Your task to perform on an android device: Open Chrome and go to settings Image 0: 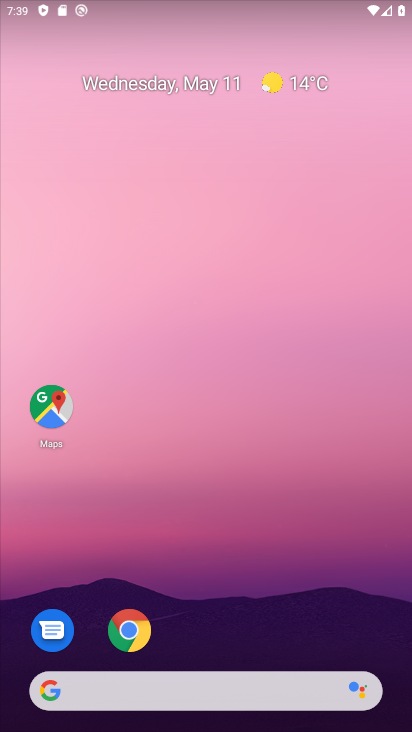
Step 0: click (99, 277)
Your task to perform on an android device: Open Chrome and go to settings Image 1: 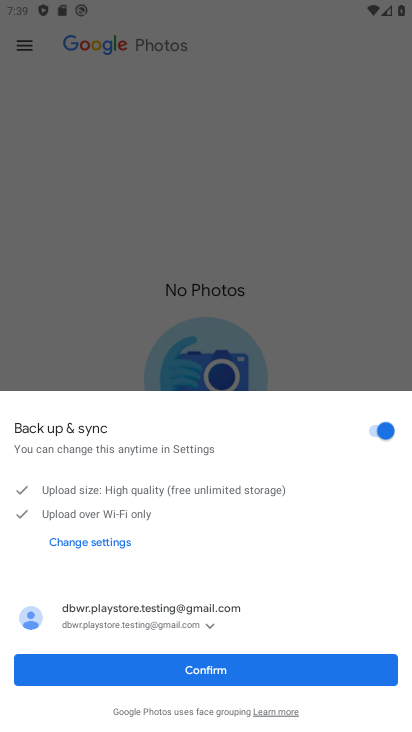
Step 1: press back button
Your task to perform on an android device: Open Chrome and go to settings Image 2: 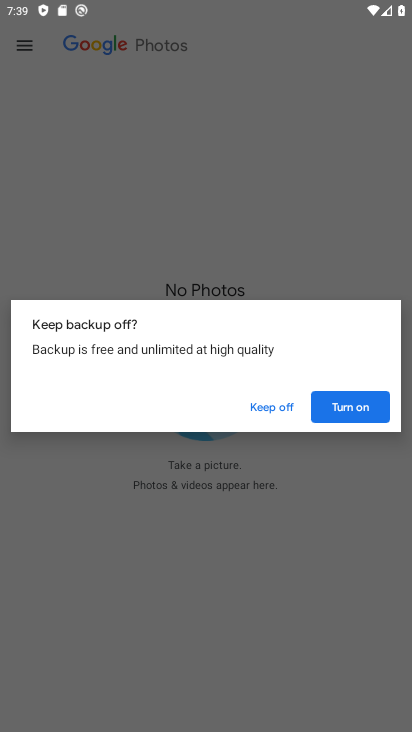
Step 2: press back button
Your task to perform on an android device: Open Chrome and go to settings Image 3: 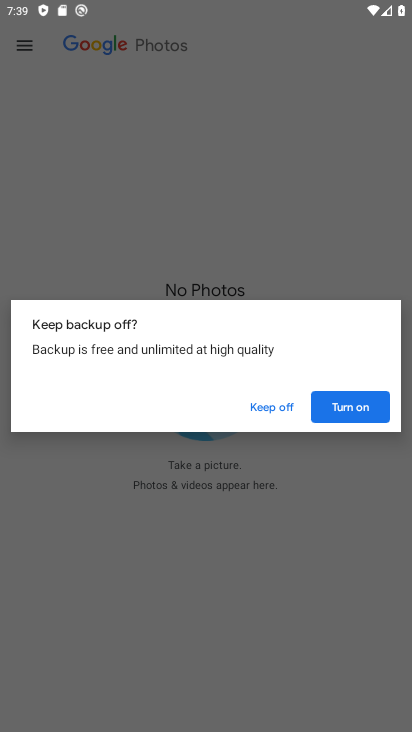
Step 3: click (262, 404)
Your task to perform on an android device: Open Chrome and go to settings Image 4: 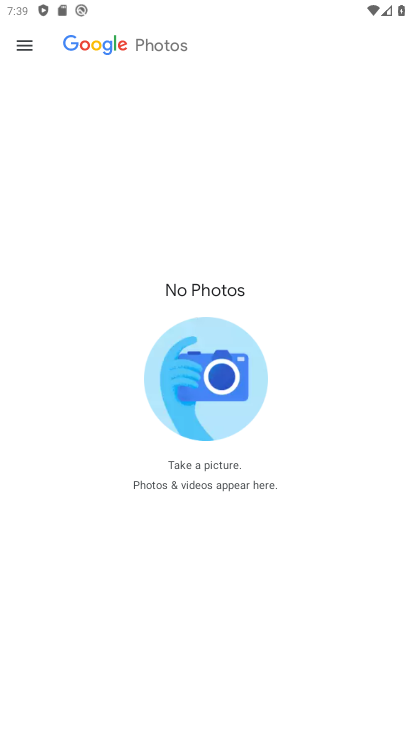
Step 4: press home button
Your task to perform on an android device: Open Chrome and go to settings Image 5: 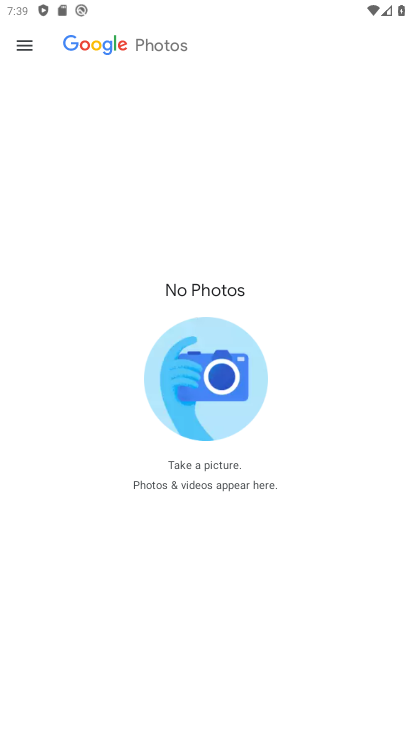
Step 5: press home button
Your task to perform on an android device: Open Chrome and go to settings Image 6: 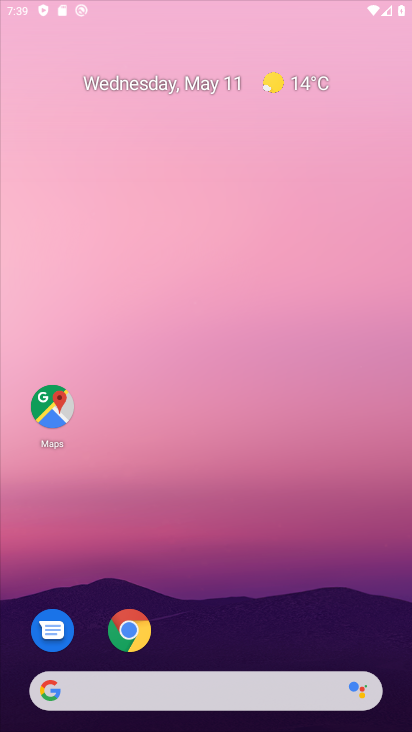
Step 6: press home button
Your task to perform on an android device: Open Chrome and go to settings Image 7: 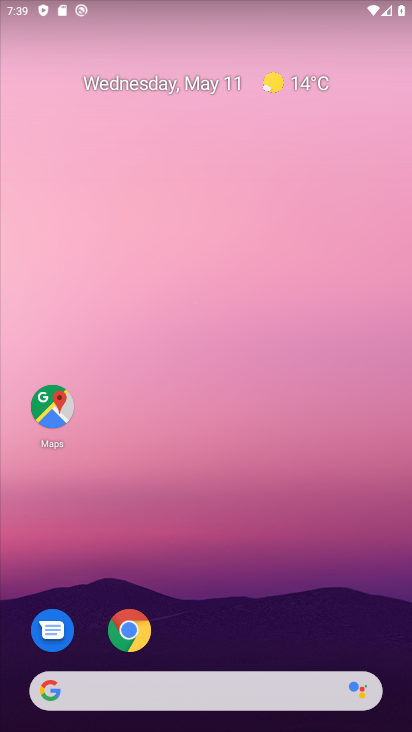
Step 7: drag from (369, 696) to (210, 3)
Your task to perform on an android device: Open Chrome and go to settings Image 8: 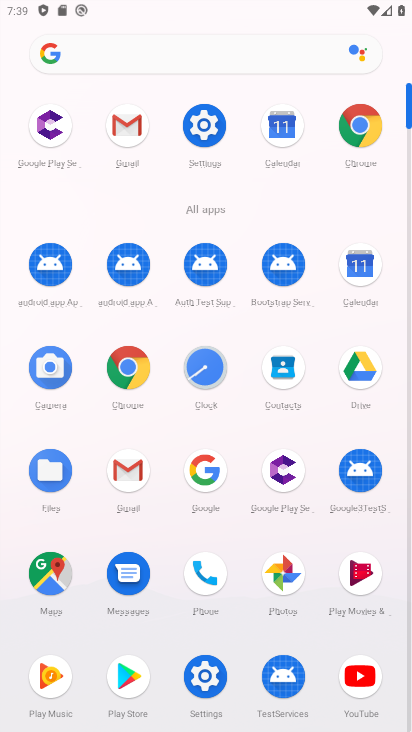
Step 8: click (357, 113)
Your task to perform on an android device: Open Chrome and go to settings Image 9: 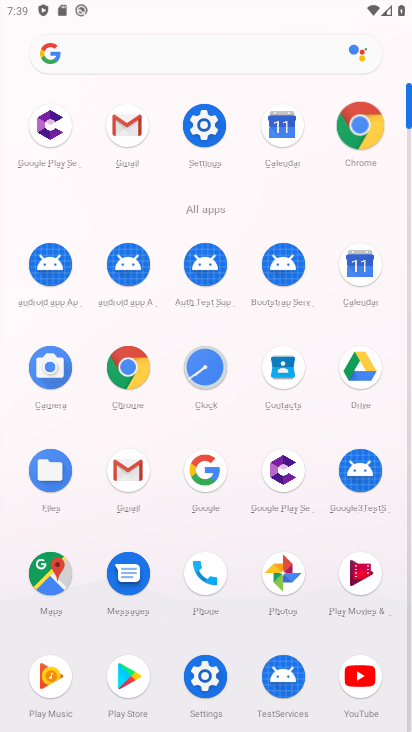
Step 9: click (357, 113)
Your task to perform on an android device: Open Chrome and go to settings Image 10: 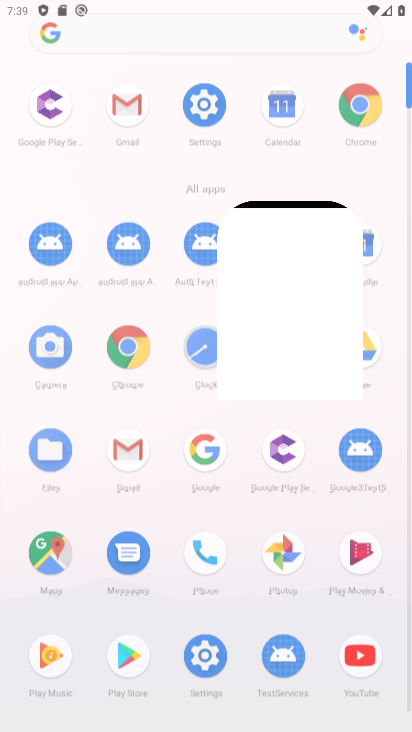
Step 10: click (347, 130)
Your task to perform on an android device: Open Chrome and go to settings Image 11: 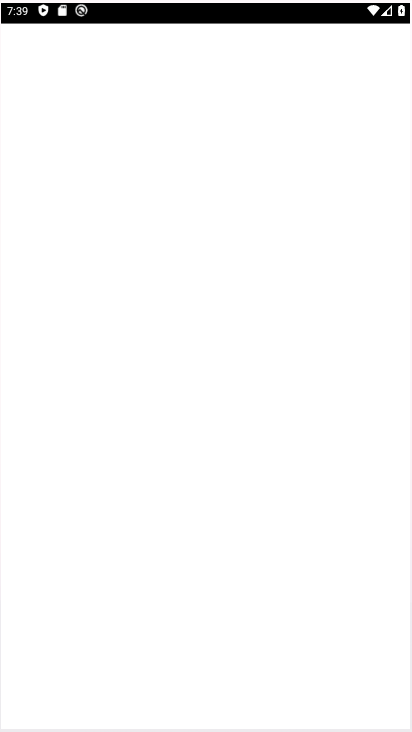
Step 11: click (335, 146)
Your task to perform on an android device: Open Chrome and go to settings Image 12: 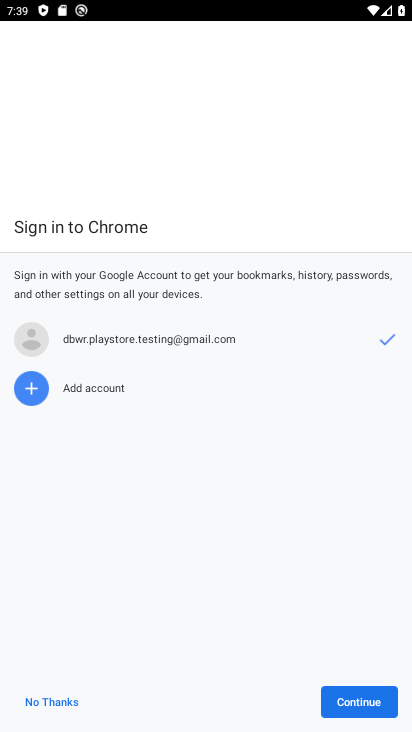
Step 12: click (371, 702)
Your task to perform on an android device: Open Chrome and go to settings Image 13: 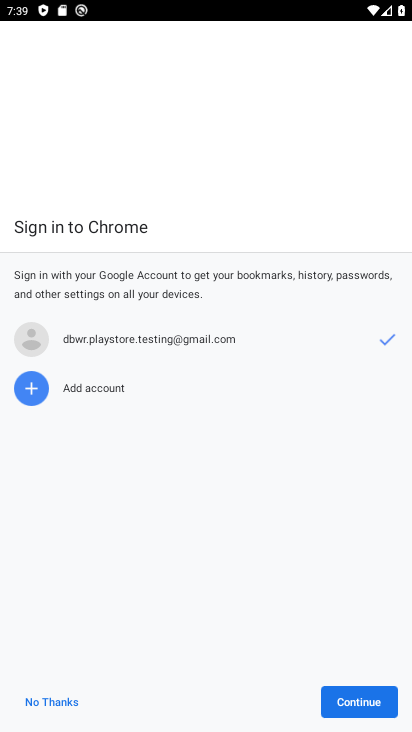
Step 13: click (379, 696)
Your task to perform on an android device: Open Chrome and go to settings Image 14: 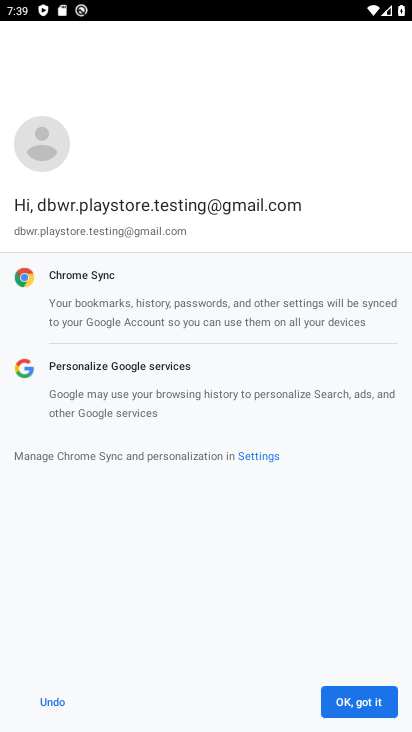
Step 14: click (380, 684)
Your task to perform on an android device: Open Chrome and go to settings Image 15: 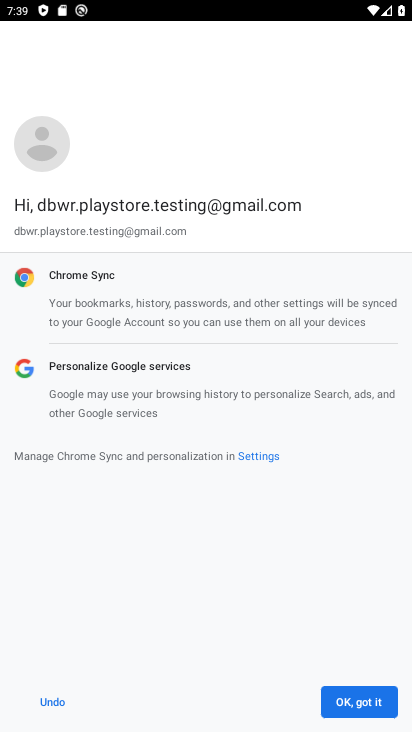
Step 15: click (354, 700)
Your task to perform on an android device: Open Chrome and go to settings Image 16: 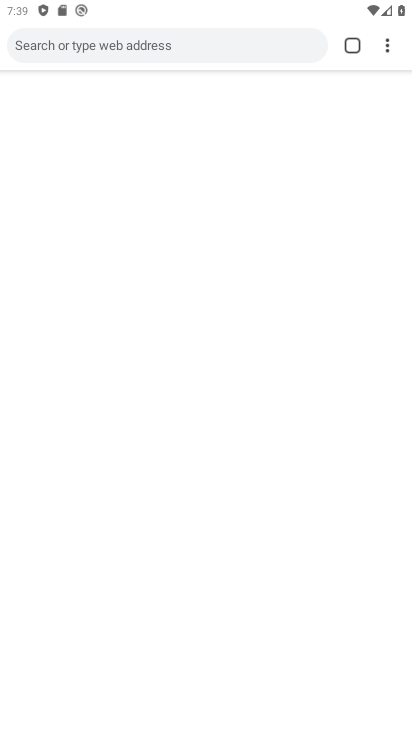
Step 16: click (347, 700)
Your task to perform on an android device: Open Chrome and go to settings Image 17: 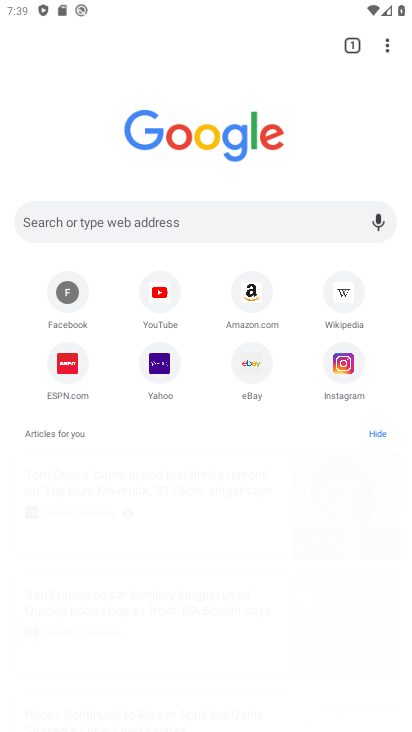
Step 17: click (381, 59)
Your task to perform on an android device: Open Chrome and go to settings Image 18: 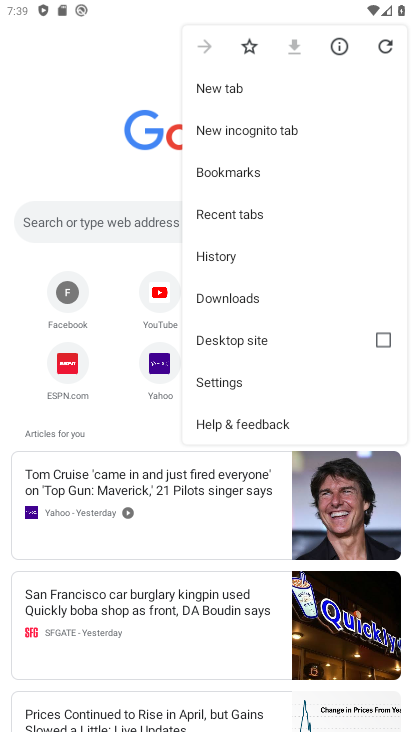
Step 18: click (232, 379)
Your task to perform on an android device: Open Chrome and go to settings Image 19: 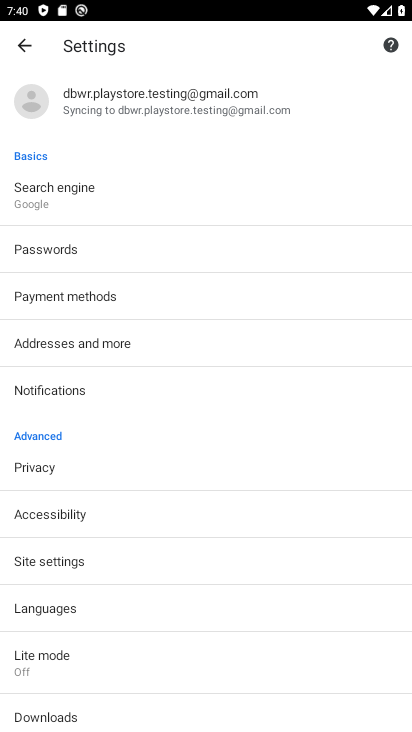
Step 19: task complete